Your task to perform on an android device: turn off javascript in the chrome app Image 0: 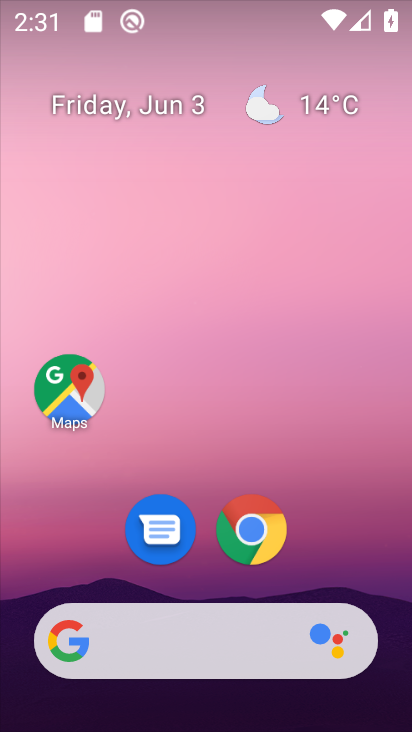
Step 0: drag from (275, 566) to (189, 101)
Your task to perform on an android device: turn off javascript in the chrome app Image 1: 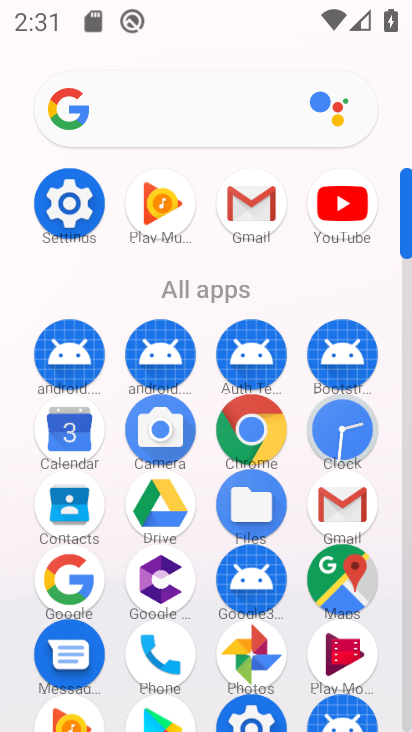
Step 1: click (243, 435)
Your task to perform on an android device: turn off javascript in the chrome app Image 2: 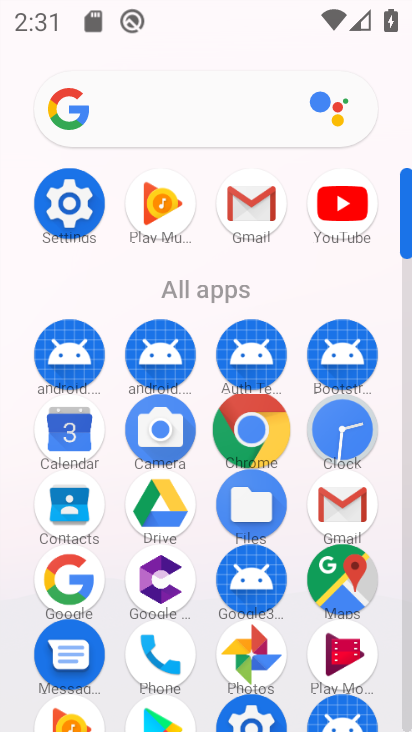
Step 2: click (243, 435)
Your task to perform on an android device: turn off javascript in the chrome app Image 3: 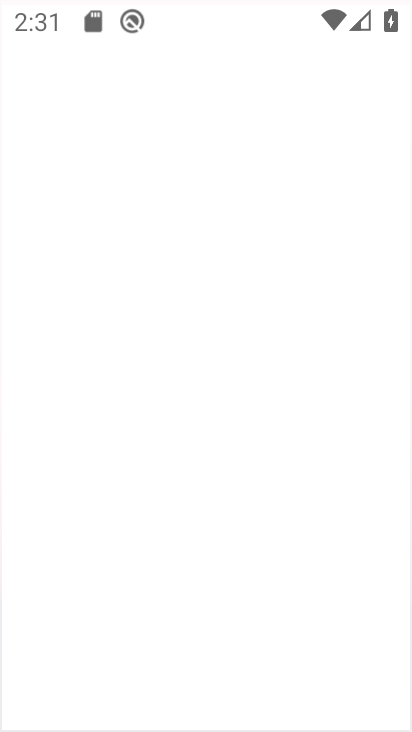
Step 3: click (245, 435)
Your task to perform on an android device: turn off javascript in the chrome app Image 4: 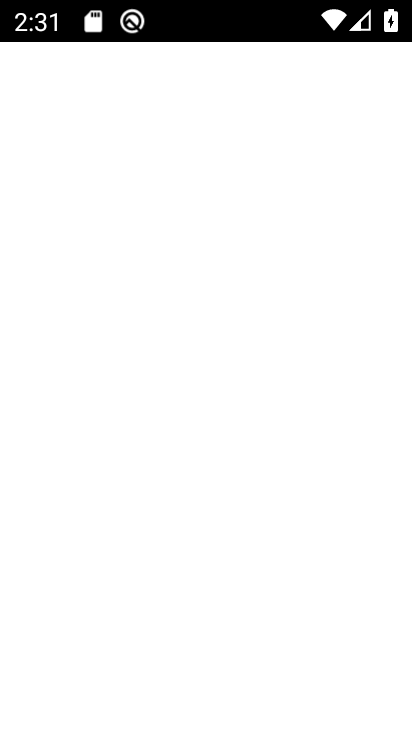
Step 4: click (245, 435)
Your task to perform on an android device: turn off javascript in the chrome app Image 5: 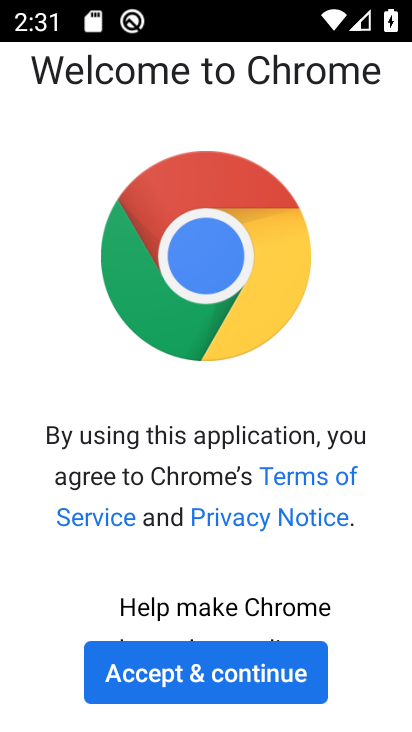
Step 5: click (210, 679)
Your task to perform on an android device: turn off javascript in the chrome app Image 6: 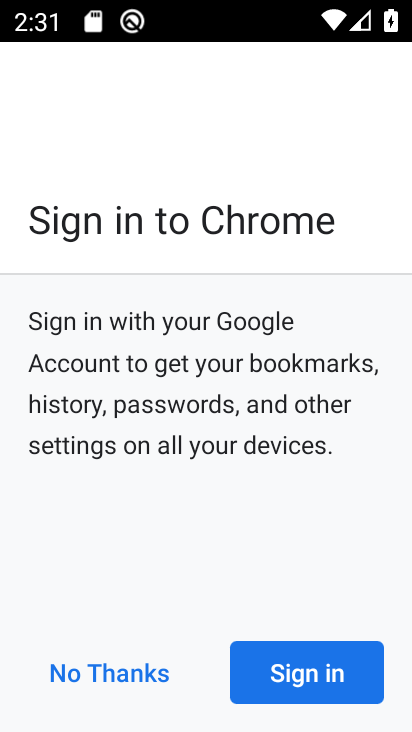
Step 6: click (204, 683)
Your task to perform on an android device: turn off javascript in the chrome app Image 7: 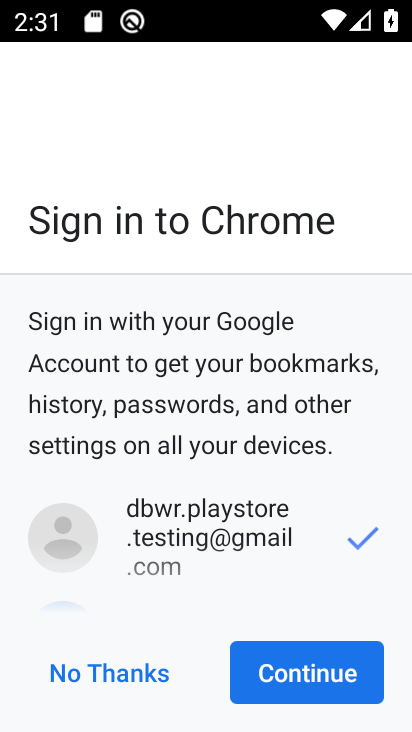
Step 7: click (319, 675)
Your task to perform on an android device: turn off javascript in the chrome app Image 8: 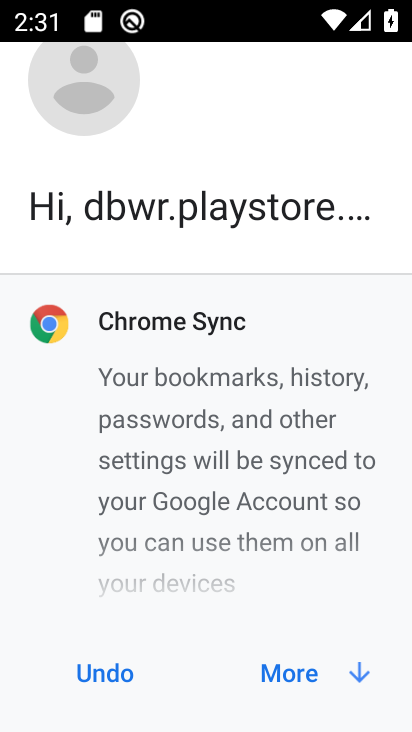
Step 8: click (318, 677)
Your task to perform on an android device: turn off javascript in the chrome app Image 9: 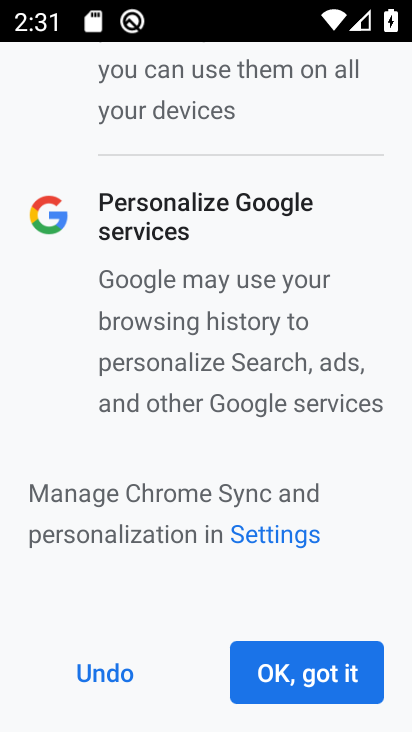
Step 9: click (300, 692)
Your task to perform on an android device: turn off javascript in the chrome app Image 10: 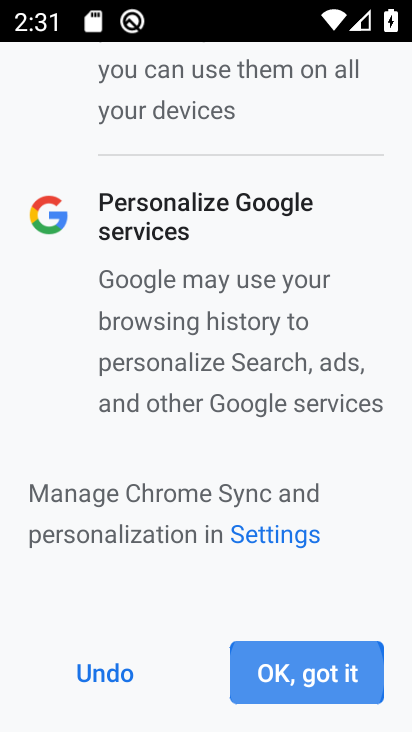
Step 10: click (300, 691)
Your task to perform on an android device: turn off javascript in the chrome app Image 11: 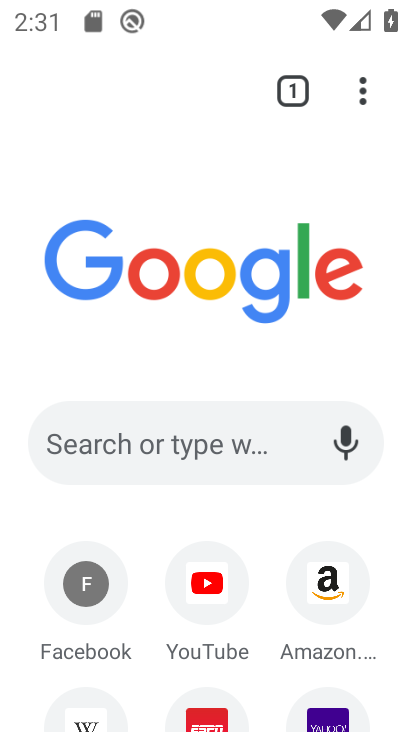
Step 11: drag from (363, 87) to (86, 544)
Your task to perform on an android device: turn off javascript in the chrome app Image 12: 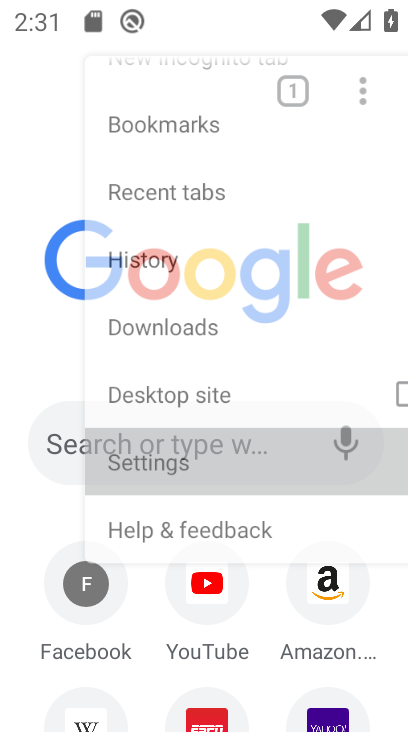
Step 12: click (85, 546)
Your task to perform on an android device: turn off javascript in the chrome app Image 13: 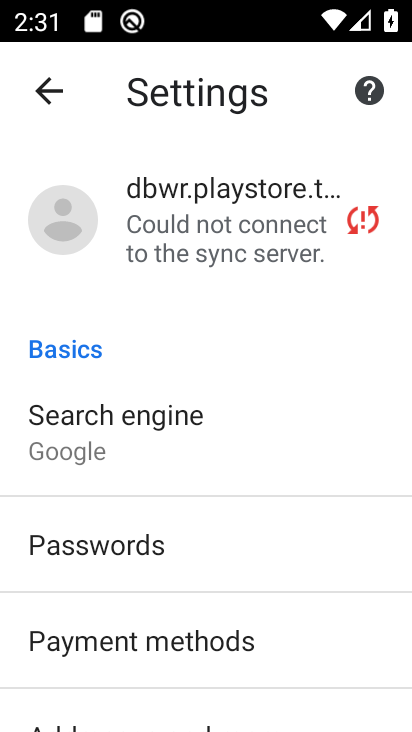
Step 13: drag from (179, 536) to (207, 217)
Your task to perform on an android device: turn off javascript in the chrome app Image 14: 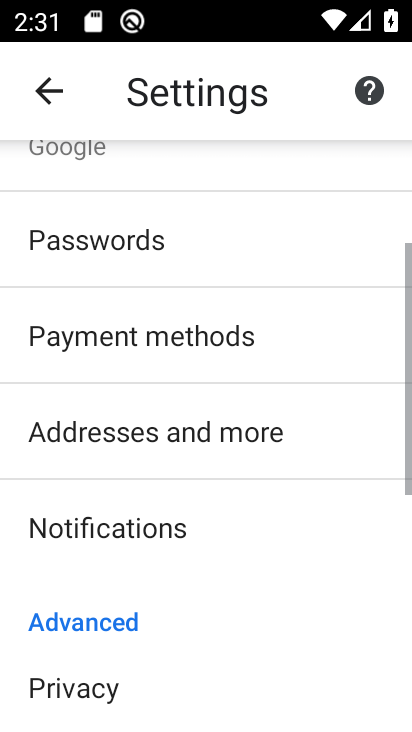
Step 14: drag from (148, 583) to (146, 266)
Your task to perform on an android device: turn off javascript in the chrome app Image 15: 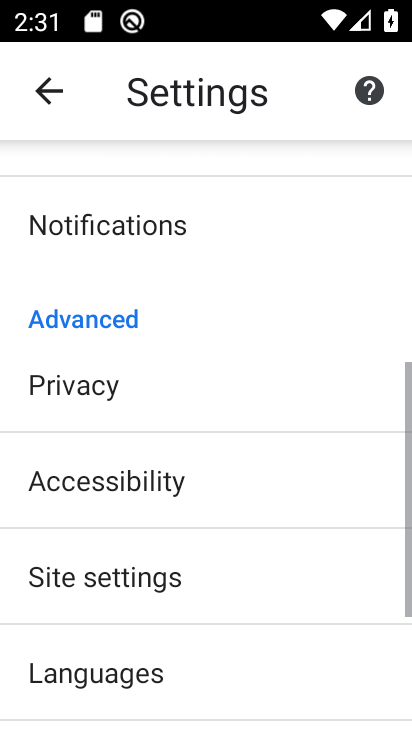
Step 15: drag from (153, 496) to (192, 280)
Your task to perform on an android device: turn off javascript in the chrome app Image 16: 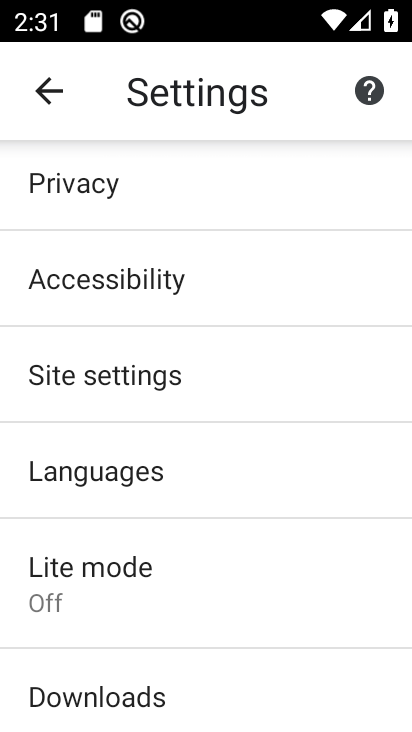
Step 16: click (83, 374)
Your task to perform on an android device: turn off javascript in the chrome app Image 17: 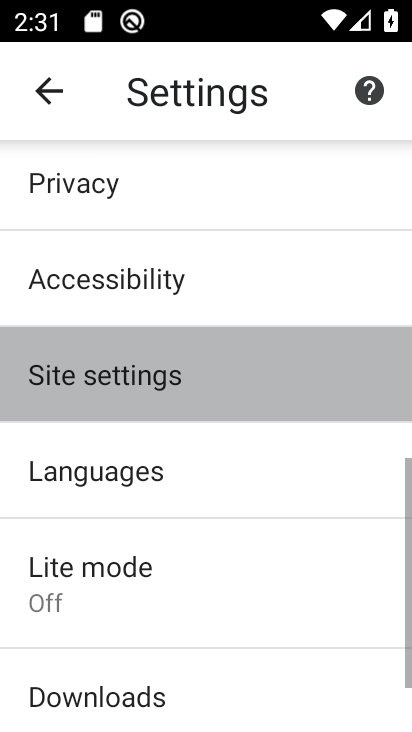
Step 17: click (82, 375)
Your task to perform on an android device: turn off javascript in the chrome app Image 18: 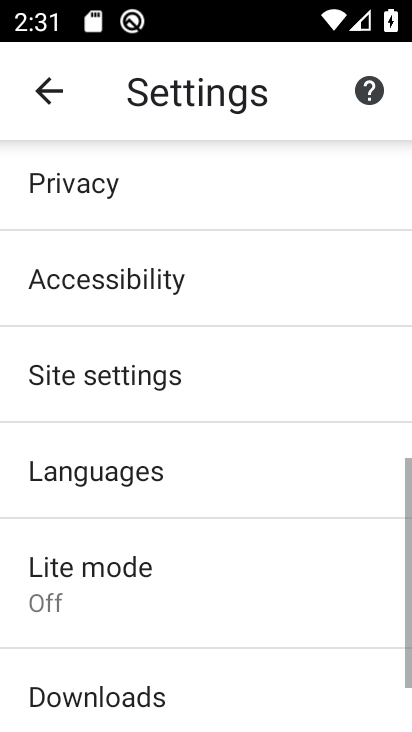
Step 18: click (82, 375)
Your task to perform on an android device: turn off javascript in the chrome app Image 19: 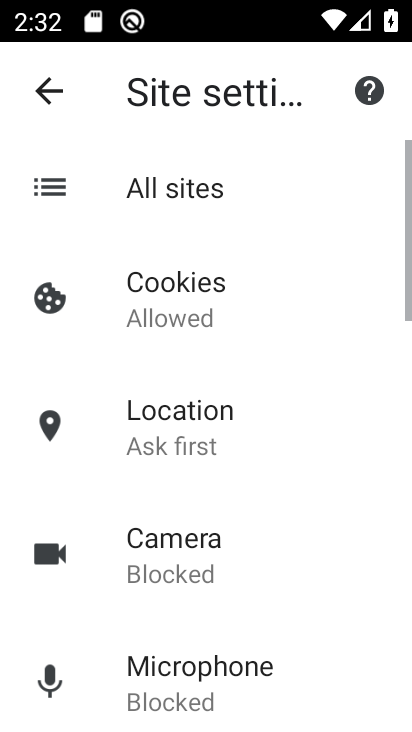
Step 19: drag from (208, 557) to (213, 286)
Your task to perform on an android device: turn off javascript in the chrome app Image 20: 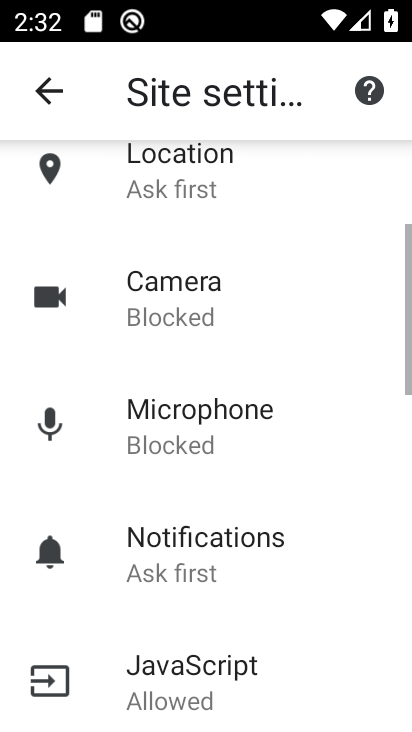
Step 20: drag from (207, 515) to (225, 228)
Your task to perform on an android device: turn off javascript in the chrome app Image 21: 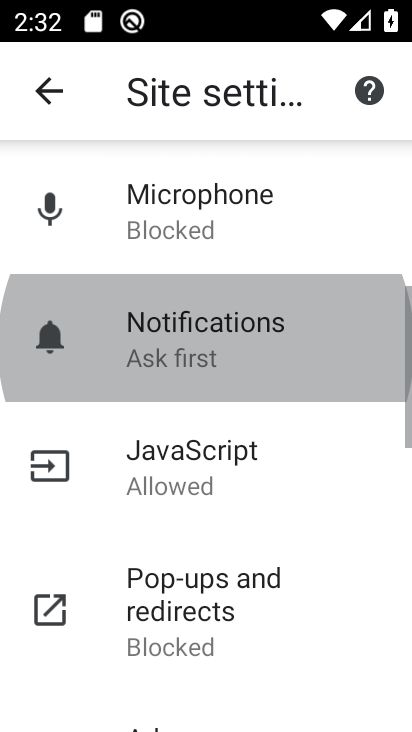
Step 21: drag from (169, 459) to (179, 270)
Your task to perform on an android device: turn off javascript in the chrome app Image 22: 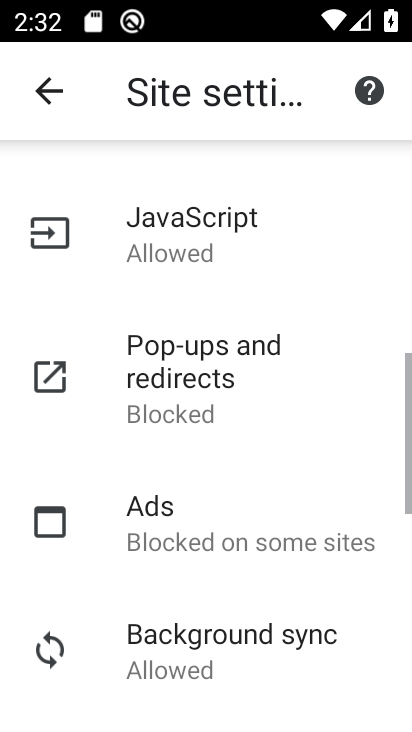
Step 22: drag from (185, 477) to (211, 307)
Your task to perform on an android device: turn off javascript in the chrome app Image 23: 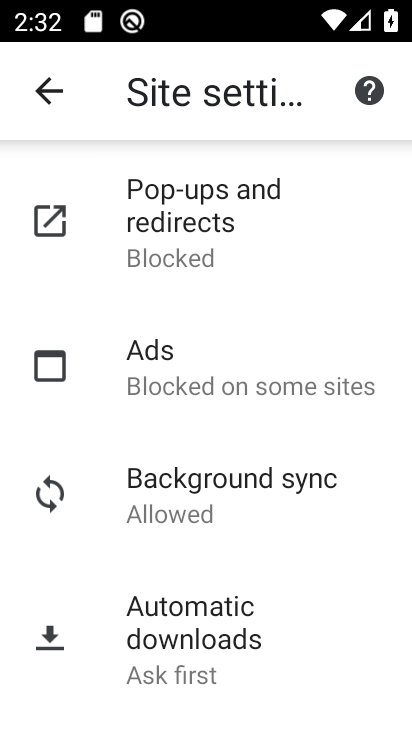
Step 23: drag from (179, 306) to (209, 523)
Your task to perform on an android device: turn off javascript in the chrome app Image 24: 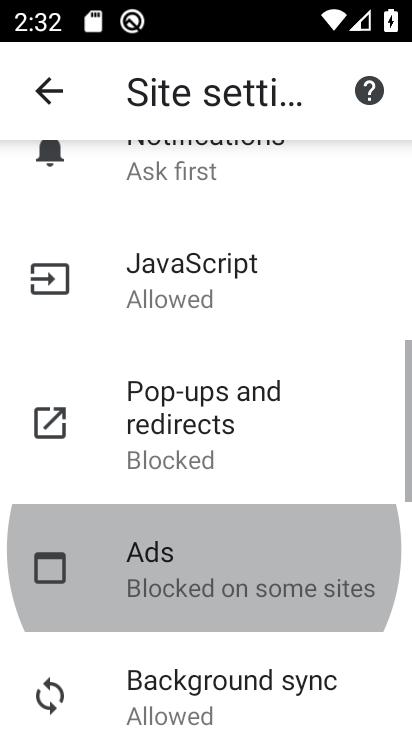
Step 24: drag from (181, 318) to (190, 490)
Your task to perform on an android device: turn off javascript in the chrome app Image 25: 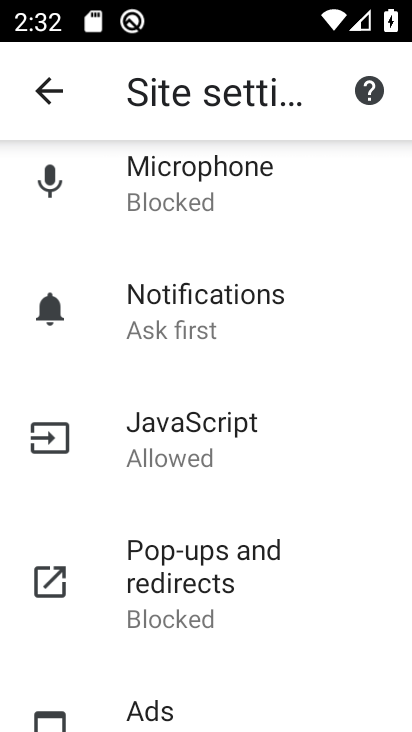
Step 25: click (168, 458)
Your task to perform on an android device: turn off javascript in the chrome app Image 26: 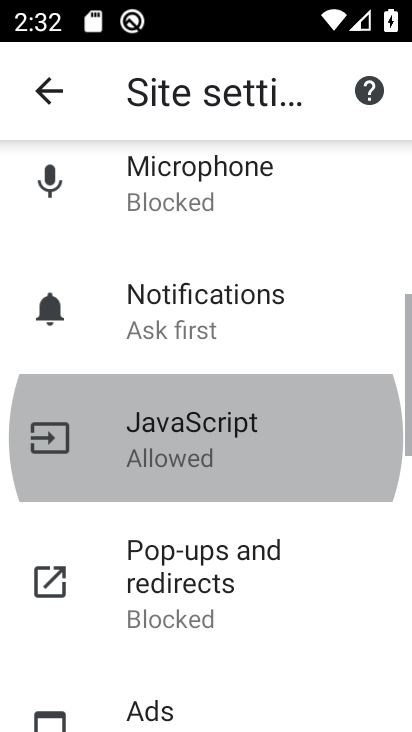
Step 26: click (168, 457)
Your task to perform on an android device: turn off javascript in the chrome app Image 27: 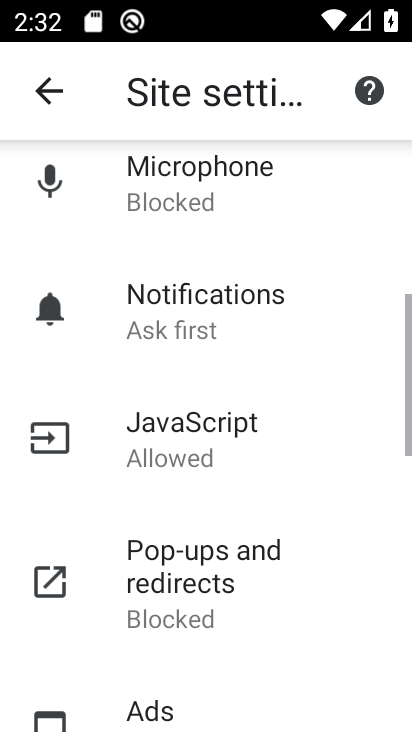
Step 27: click (168, 457)
Your task to perform on an android device: turn off javascript in the chrome app Image 28: 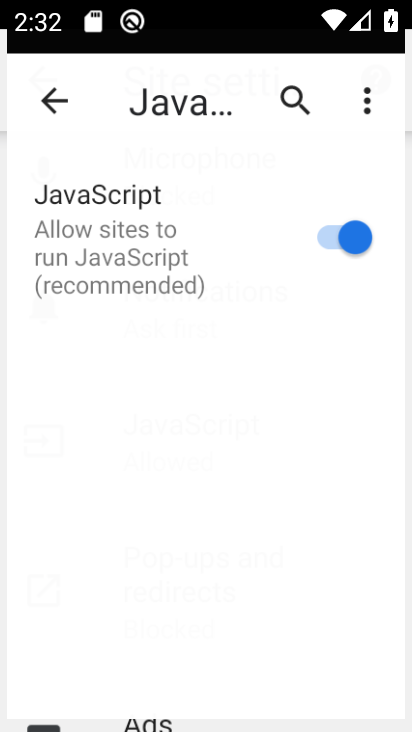
Step 28: click (164, 456)
Your task to perform on an android device: turn off javascript in the chrome app Image 29: 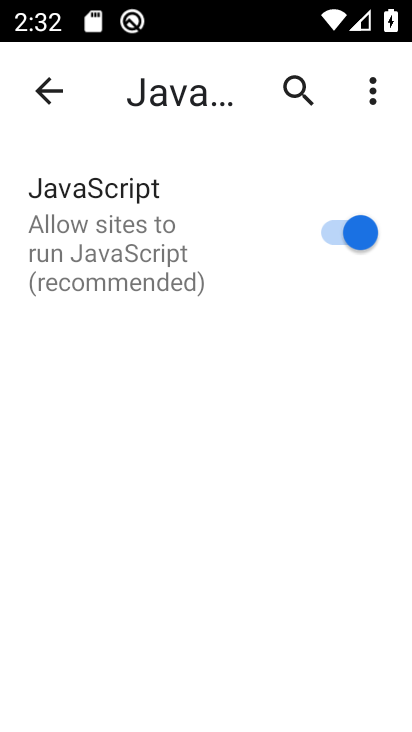
Step 29: task complete